Your task to perform on an android device: delete browsing data in the chrome app Image 0: 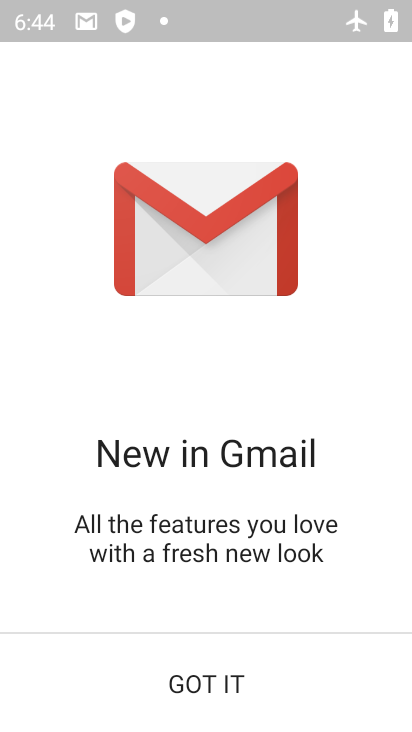
Step 0: drag from (160, 139) to (58, 402)
Your task to perform on an android device: delete browsing data in the chrome app Image 1: 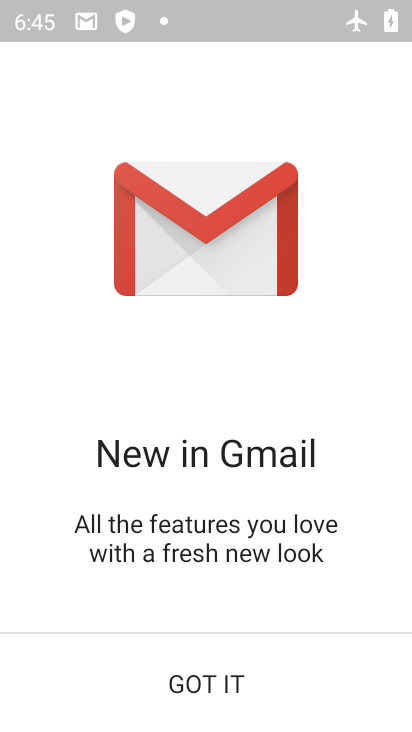
Step 1: press home button
Your task to perform on an android device: delete browsing data in the chrome app Image 2: 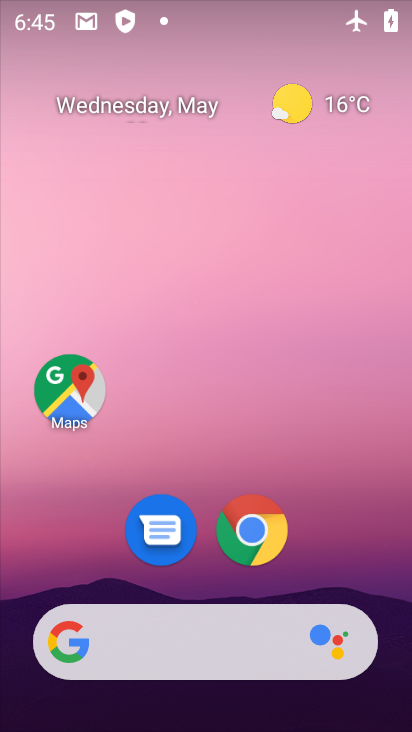
Step 2: click (257, 532)
Your task to perform on an android device: delete browsing data in the chrome app Image 3: 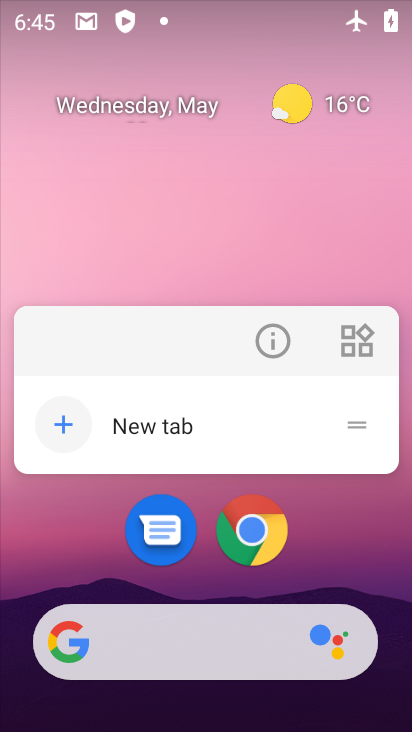
Step 3: click (274, 326)
Your task to perform on an android device: delete browsing data in the chrome app Image 4: 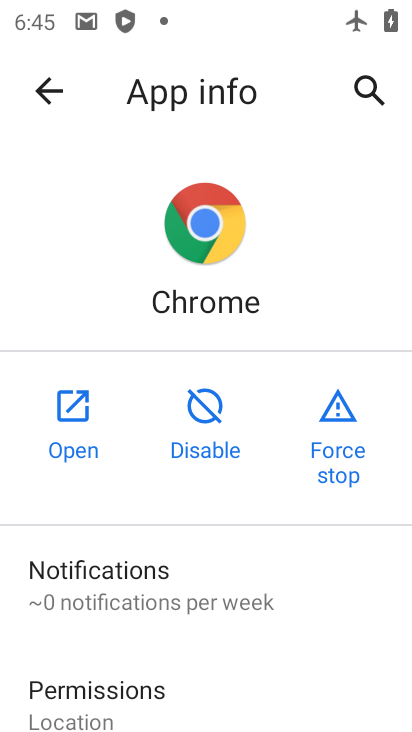
Step 4: click (85, 413)
Your task to perform on an android device: delete browsing data in the chrome app Image 5: 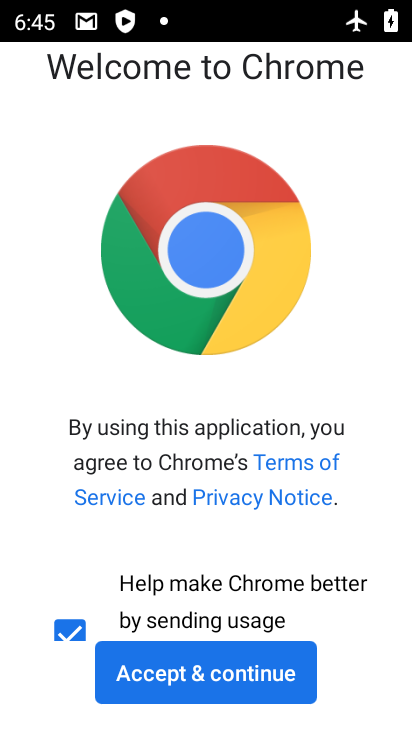
Step 5: drag from (181, 694) to (139, 694)
Your task to perform on an android device: delete browsing data in the chrome app Image 6: 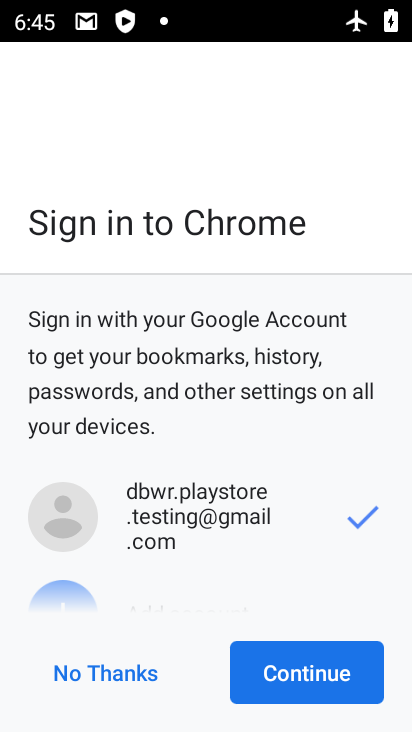
Step 6: click (284, 674)
Your task to perform on an android device: delete browsing data in the chrome app Image 7: 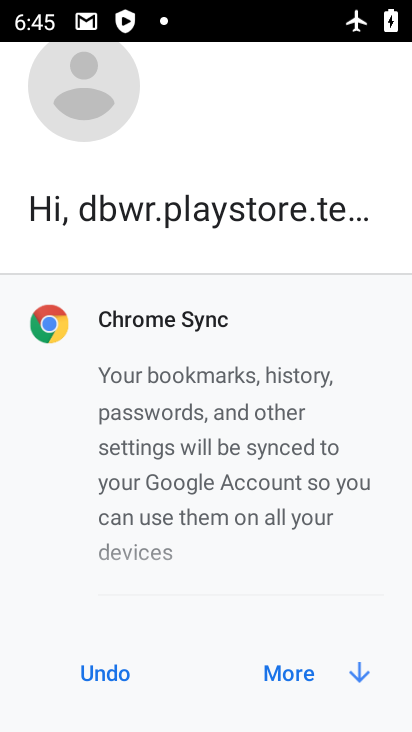
Step 7: click (284, 674)
Your task to perform on an android device: delete browsing data in the chrome app Image 8: 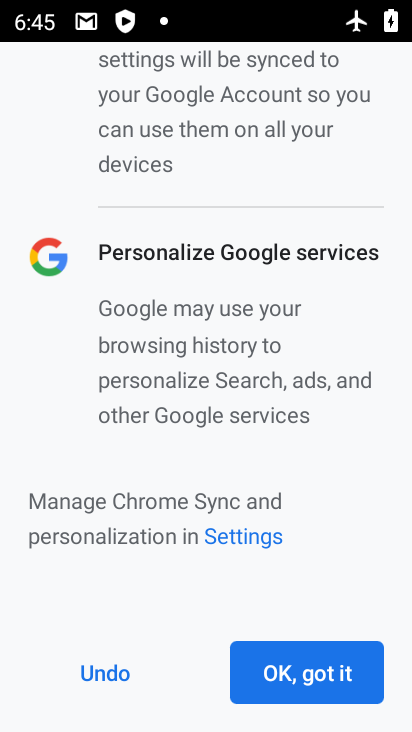
Step 8: click (284, 674)
Your task to perform on an android device: delete browsing data in the chrome app Image 9: 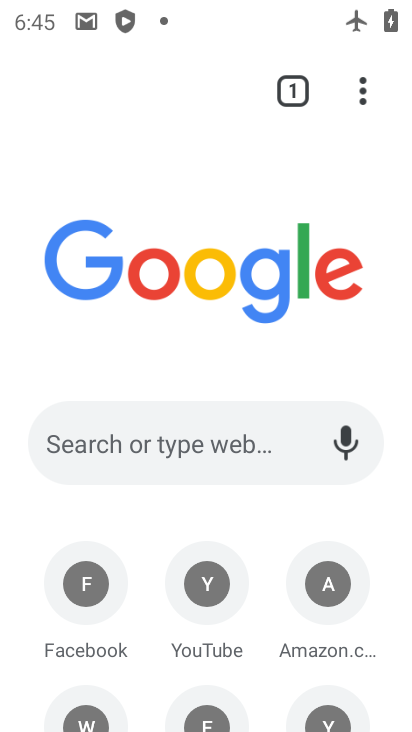
Step 9: click (359, 97)
Your task to perform on an android device: delete browsing data in the chrome app Image 10: 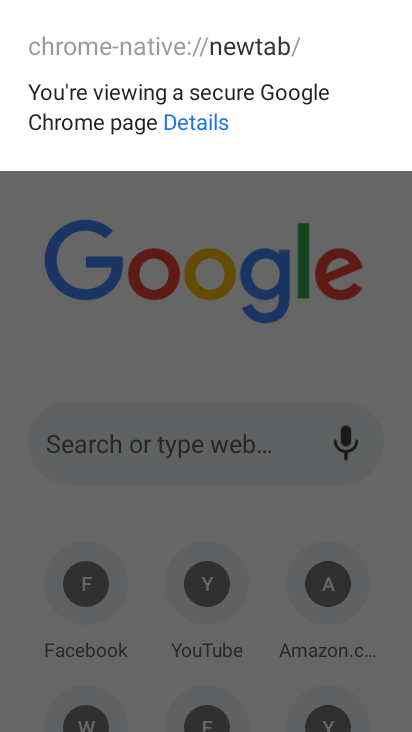
Step 10: click (356, 225)
Your task to perform on an android device: delete browsing data in the chrome app Image 11: 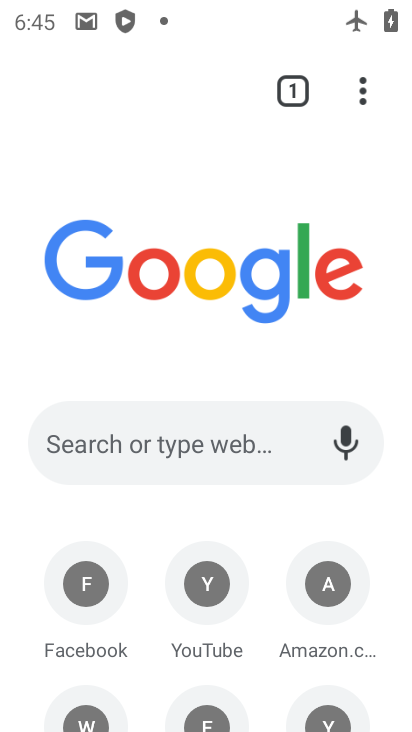
Step 11: click (363, 97)
Your task to perform on an android device: delete browsing data in the chrome app Image 12: 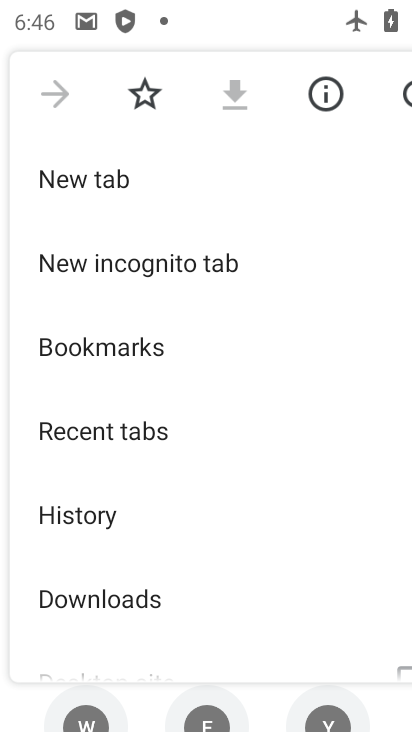
Step 12: click (117, 505)
Your task to perform on an android device: delete browsing data in the chrome app Image 13: 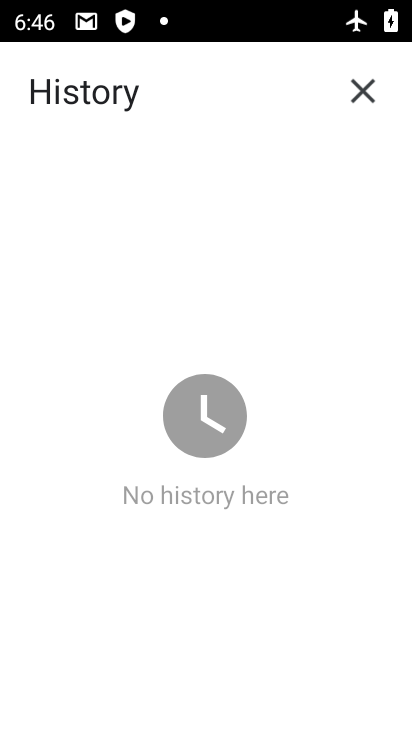
Step 13: task complete